Your task to perform on an android device: Turn on the flashlight Image 0: 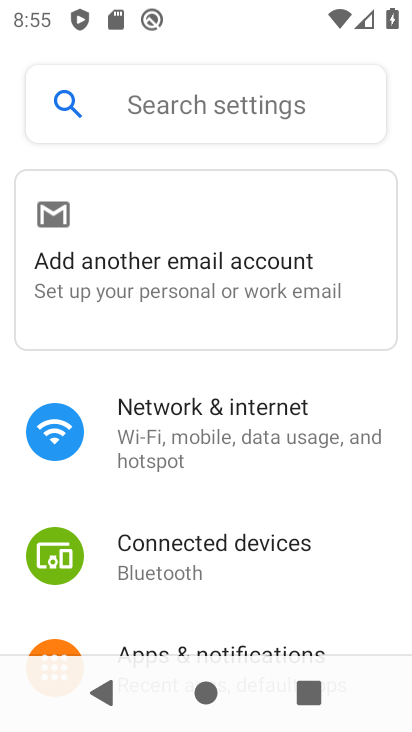
Step 0: press home button
Your task to perform on an android device: Turn on the flashlight Image 1: 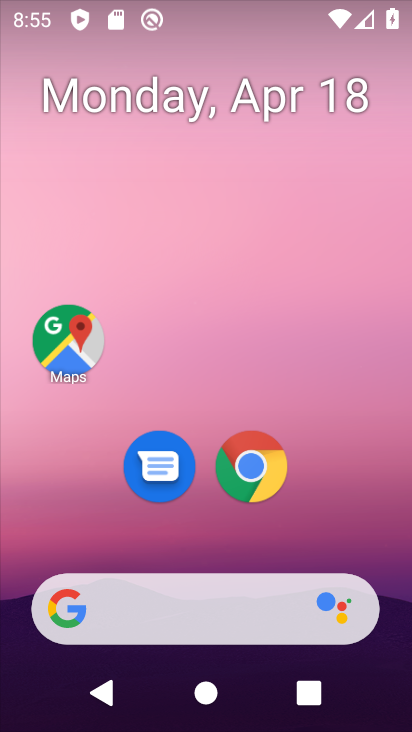
Step 1: task complete